Your task to perform on an android device: open device folders in google photos Image 0: 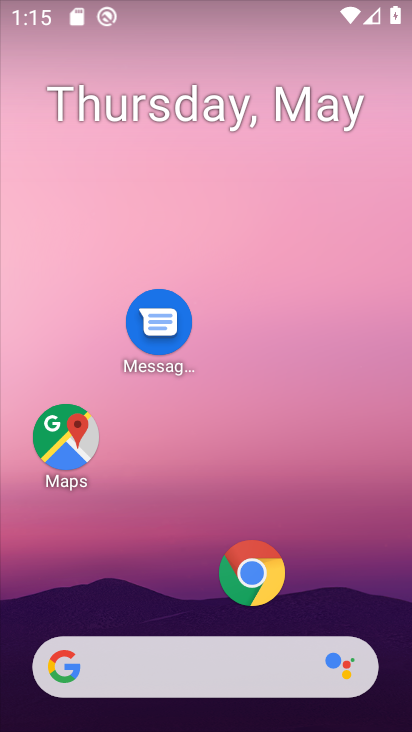
Step 0: click (309, 77)
Your task to perform on an android device: open device folders in google photos Image 1: 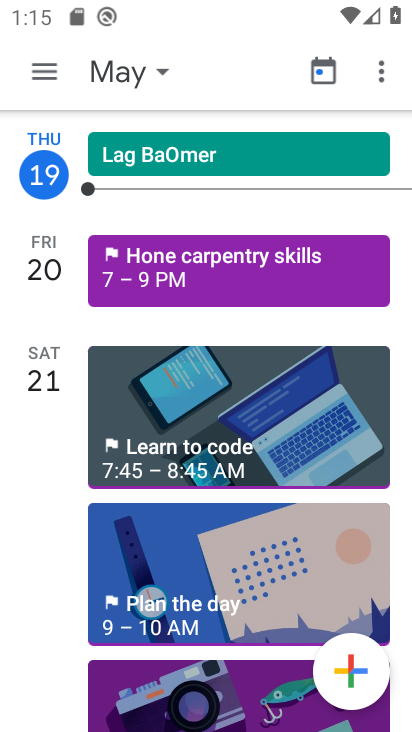
Step 1: press home button
Your task to perform on an android device: open device folders in google photos Image 2: 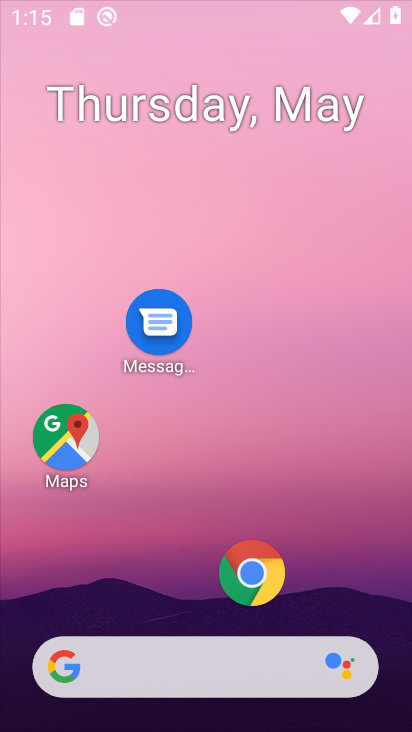
Step 2: drag from (221, 629) to (298, 113)
Your task to perform on an android device: open device folders in google photos Image 3: 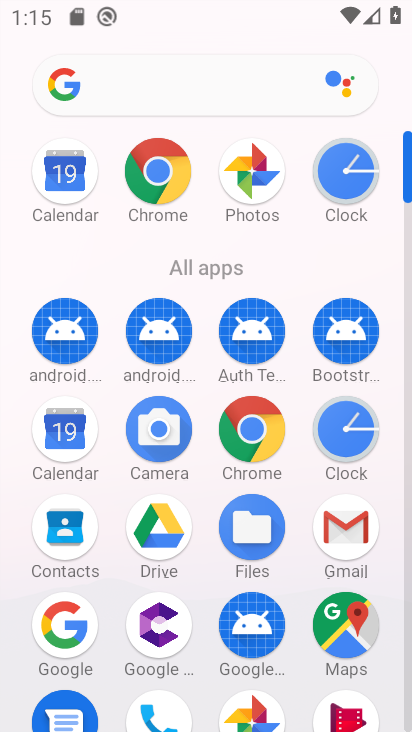
Step 3: click (245, 706)
Your task to perform on an android device: open device folders in google photos Image 4: 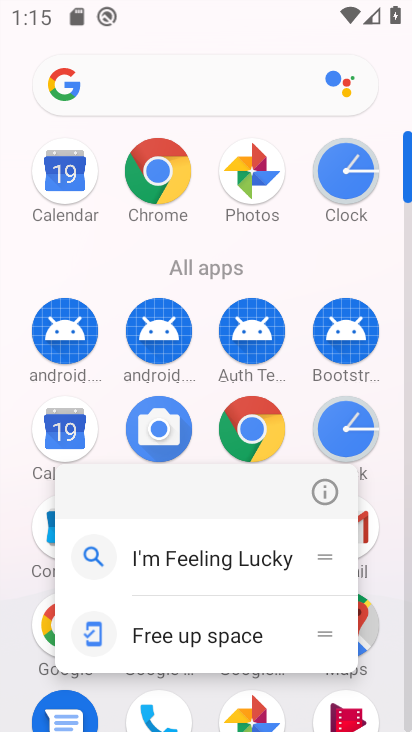
Step 4: click (322, 480)
Your task to perform on an android device: open device folders in google photos Image 5: 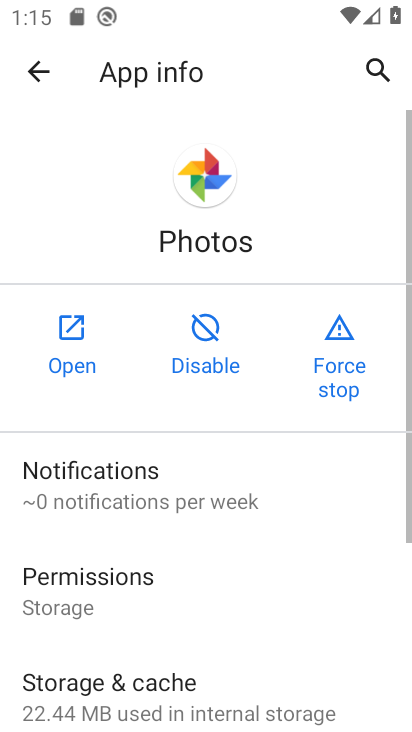
Step 5: click (77, 351)
Your task to perform on an android device: open device folders in google photos Image 6: 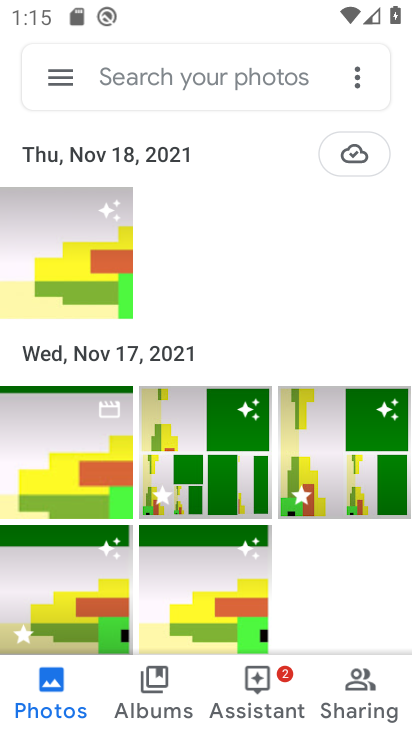
Step 6: click (58, 80)
Your task to perform on an android device: open device folders in google photos Image 7: 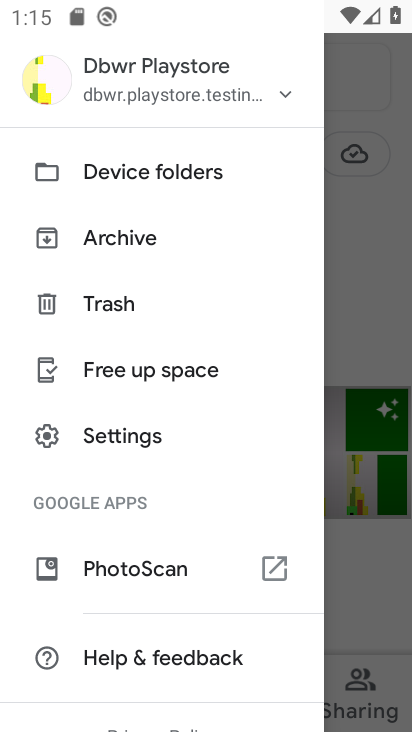
Step 7: click (135, 181)
Your task to perform on an android device: open device folders in google photos Image 8: 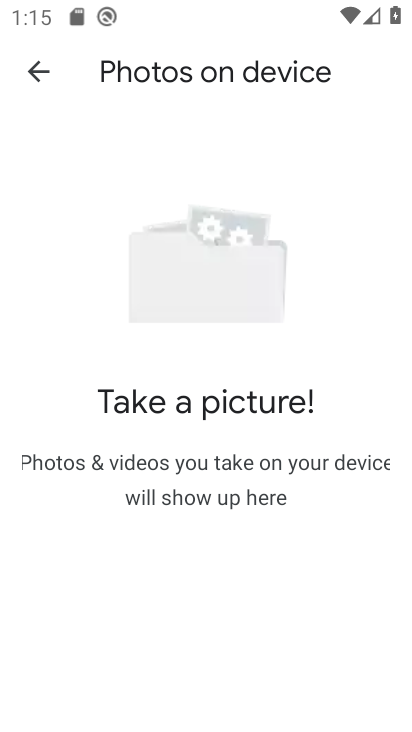
Step 8: task complete